Your task to perform on an android device: Open Android settings Image 0: 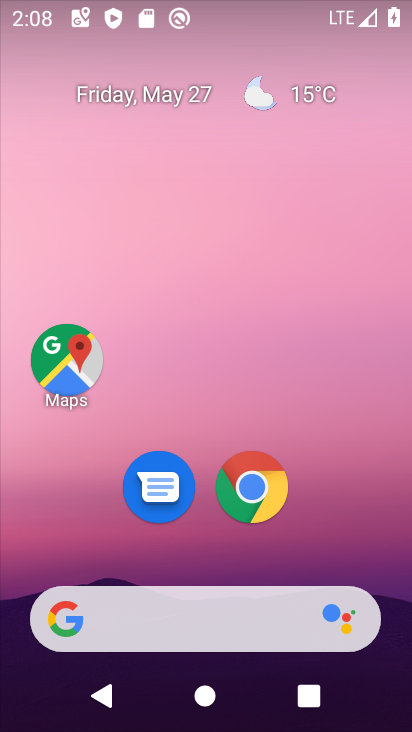
Step 0: drag from (360, 508) to (345, 124)
Your task to perform on an android device: Open Android settings Image 1: 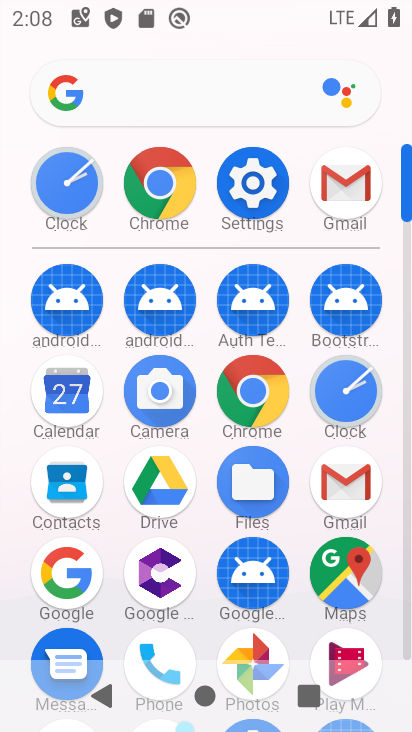
Step 1: click (271, 181)
Your task to perform on an android device: Open Android settings Image 2: 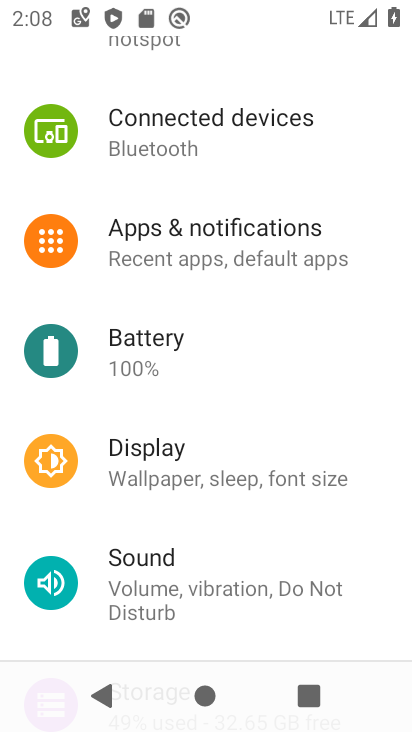
Step 2: task complete